Your task to perform on an android device: Empty the shopping cart on bestbuy.com. Add logitech g502 to the cart on bestbuy.com, then select checkout. Image 0: 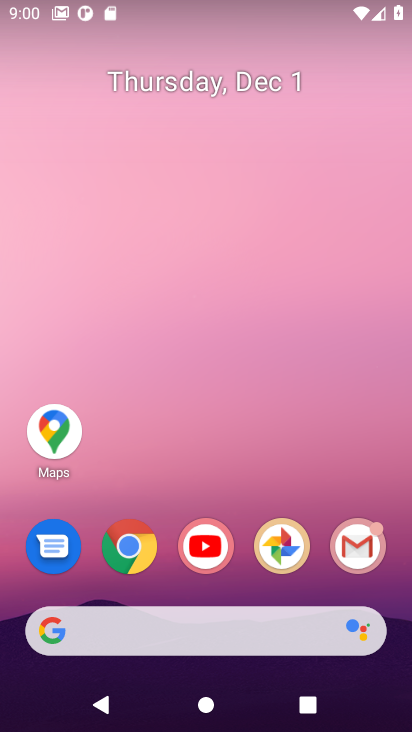
Step 0: click (134, 548)
Your task to perform on an android device: Empty the shopping cart on bestbuy.com. Add logitech g502 to the cart on bestbuy.com, then select checkout. Image 1: 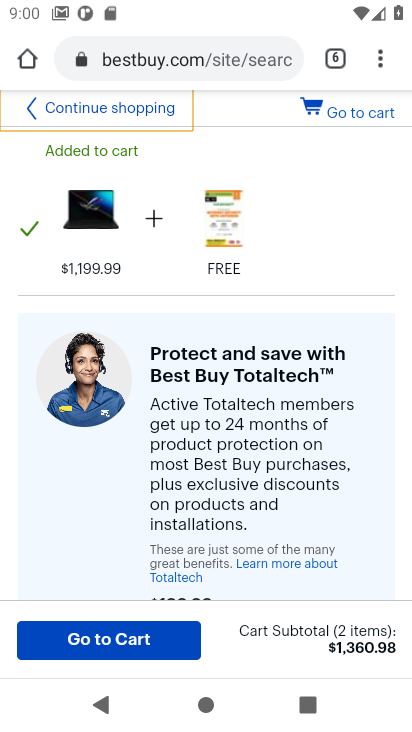
Step 1: click (351, 114)
Your task to perform on an android device: Empty the shopping cart on bestbuy.com. Add logitech g502 to the cart on bestbuy.com, then select checkout. Image 2: 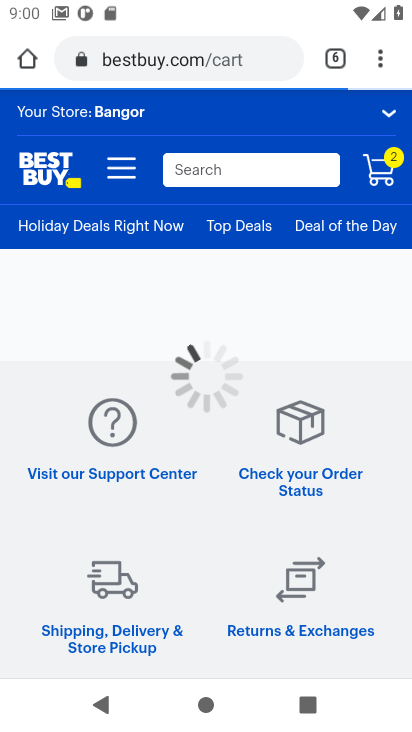
Step 2: click (382, 172)
Your task to perform on an android device: Empty the shopping cart on bestbuy.com. Add logitech g502 to the cart on bestbuy.com, then select checkout. Image 3: 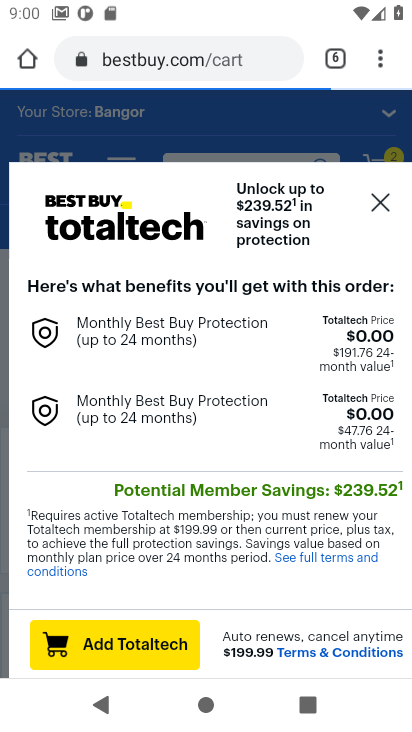
Step 3: drag from (318, 325) to (322, 251)
Your task to perform on an android device: Empty the shopping cart on bestbuy.com. Add logitech g502 to the cart on bestbuy.com, then select checkout. Image 4: 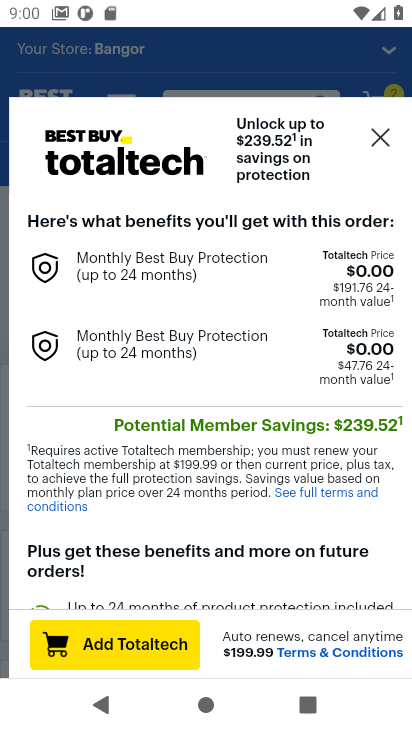
Step 4: click (380, 140)
Your task to perform on an android device: Empty the shopping cart on bestbuy.com. Add logitech g502 to the cart on bestbuy.com, then select checkout. Image 5: 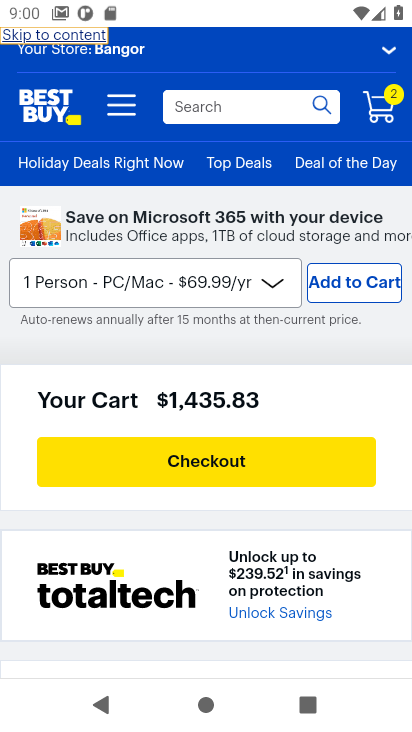
Step 5: drag from (272, 369) to (283, 184)
Your task to perform on an android device: Empty the shopping cart on bestbuy.com. Add logitech g502 to the cart on bestbuy.com, then select checkout. Image 6: 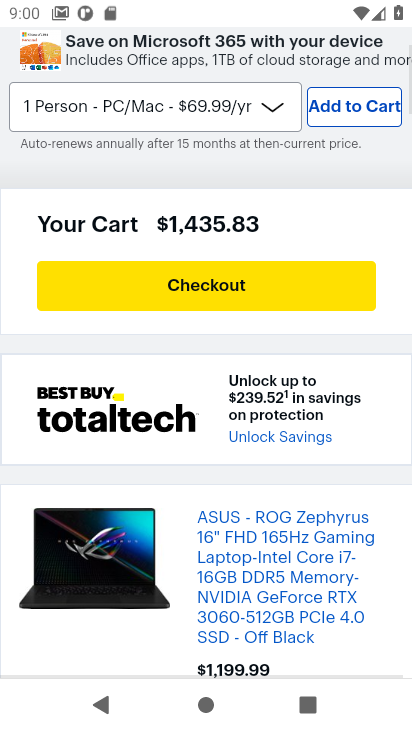
Step 6: drag from (249, 414) to (250, 172)
Your task to perform on an android device: Empty the shopping cart on bestbuy.com. Add logitech g502 to the cart on bestbuy.com, then select checkout. Image 7: 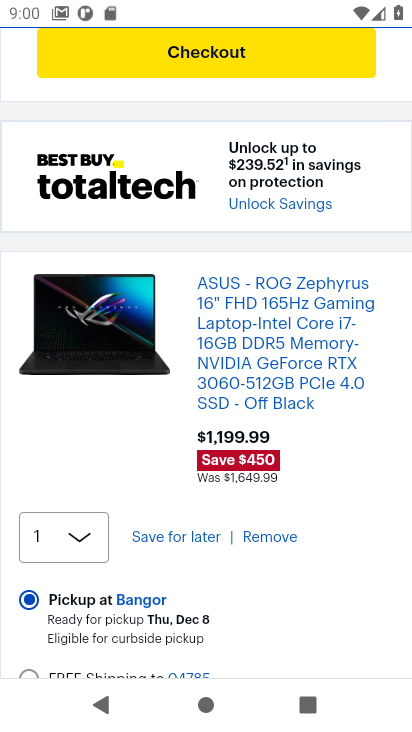
Step 7: click (259, 535)
Your task to perform on an android device: Empty the shopping cart on bestbuy.com. Add logitech g502 to the cart on bestbuy.com, then select checkout. Image 8: 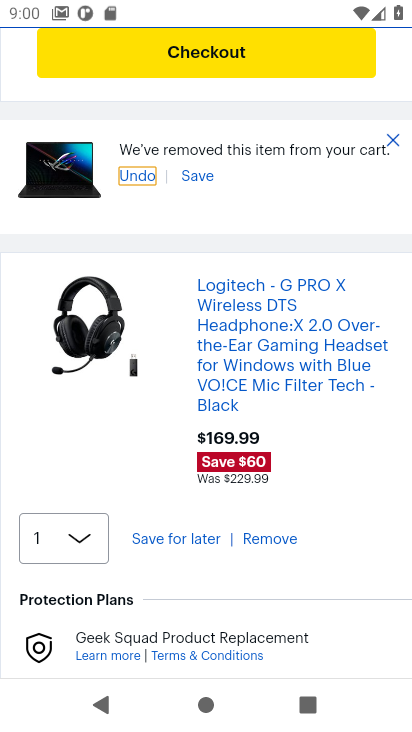
Step 8: click (259, 535)
Your task to perform on an android device: Empty the shopping cart on bestbuy.com. Add logitech g502 to the cart on bestbuy.com, then select checkout. Image 9: 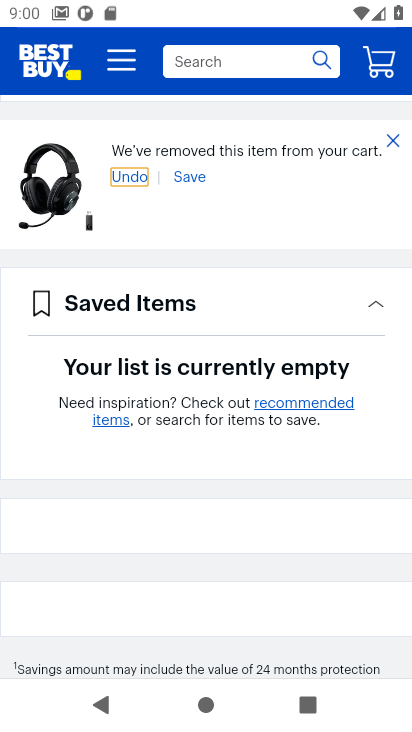
Step 9: drag from (250, 366) to (249, 458)
Your task to perform on an android device: Empty the shopping cart on bestbuy.com. Add logitech g502 to the cart on bestbuy.com, then select checkout. Image 10: 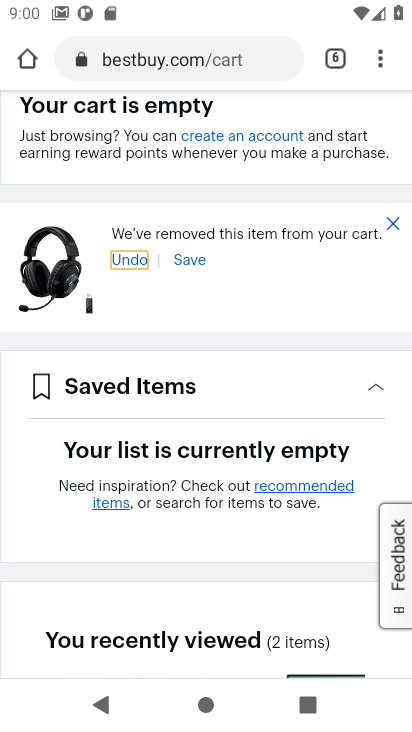
Step 10: drag from (267, 348) to (266, 424)
Your task to perform on an android device: Empty the shopping cart on bestbuy.com. Add logitech g502 to the cart on bestbuy.com, then select checkout. Image 11: 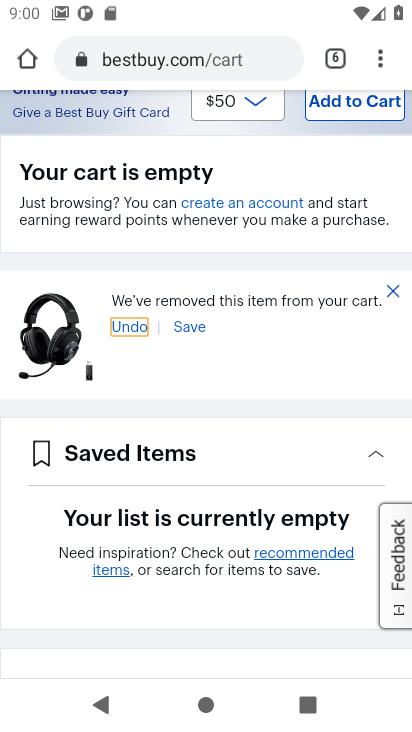
Step 11: drag from (267, 171) to (267, 377)
Your task to perform on an android device: Empty the shopping cart on bestbuy.com. Add logitech g502 to the cart on bestbuy.com, then select checkout. Image 12: 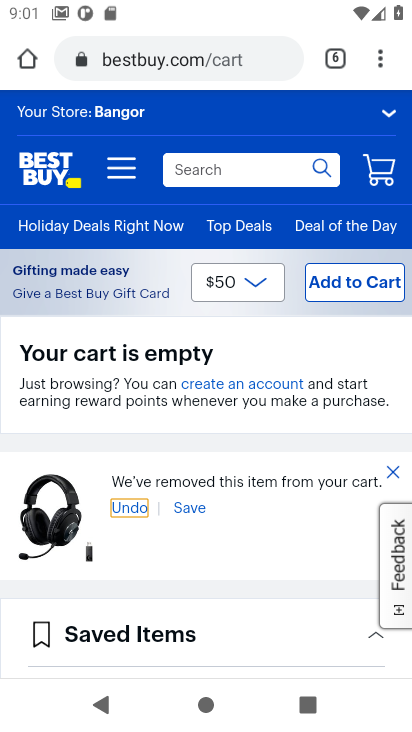
Step 12: click (178, 172)
Your task to perform on an android device: Empty the shopping cart on bestbuy.com. Add logitech g502 to the cart on bestbuy.com, then select checkout. Image 13: 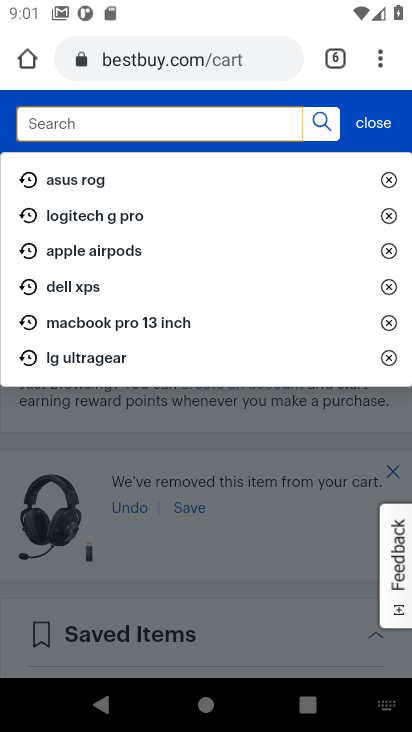
Step 13: type "logitech g502"
Your task to perform on an android device: Empty the shopping cart on bestbuy.com. Add logitech g502 to the cart on bestbuy.com, then select checkout. Image 14: 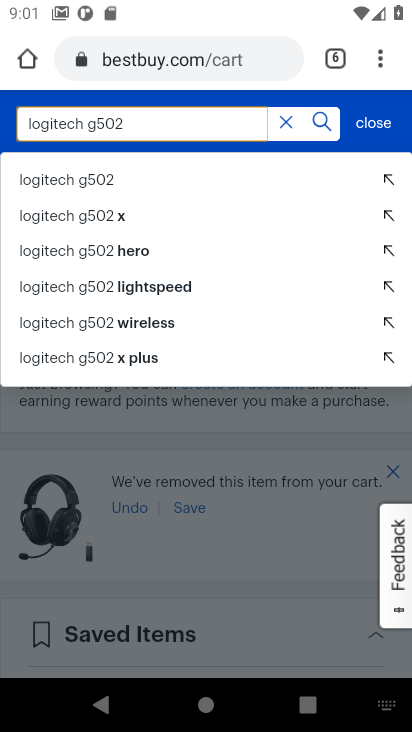
Step 14: click (64, 184)
Your task to perform on an android device: Empty the shopping cart on bestbuy.com. Add logitech g502 to the cart on bestbuy.com, then select checkout. Image 15: 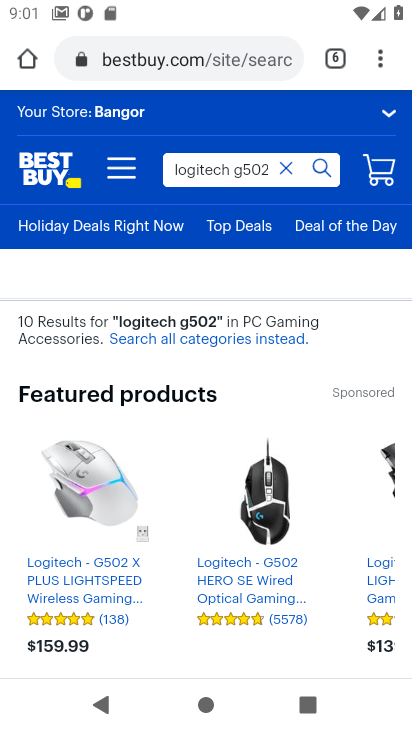
Step 15: drag from (205, 392) to (215, 204)
Your task to perform on an android device: Empty the shopping cart on bestbuy.com. Add logitech g502 to the cart on bestbuy.com, then select checkout. Image 16: 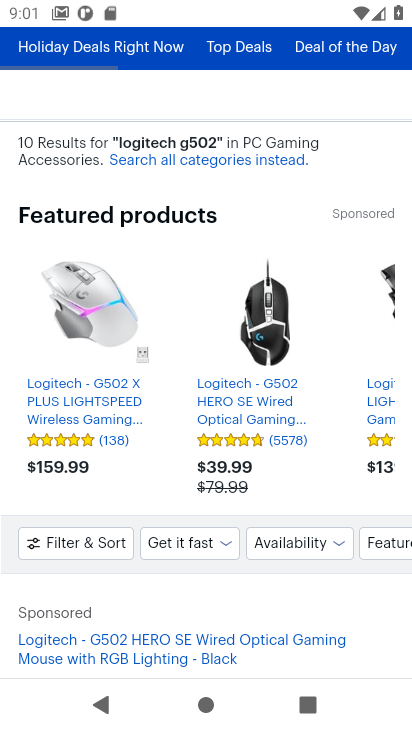
Step 16: drag from (176, 460) to (166, 242)
Your task to perform on an android device: Empty the shopping cart on bestbuy.com. Add logitech g502 to the cart on bestbuy.com, then select checkout. Image 17: 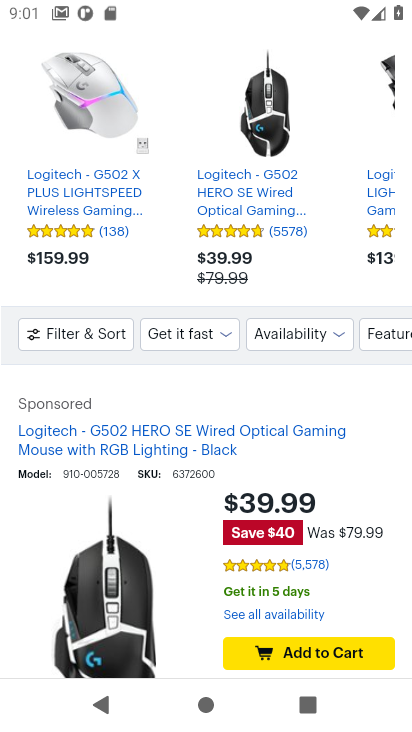
Step 17: drag from (168, 486) to (163, 321)
Your task to perform on an android device: Empty the shopping cart on bestbuy.com. Add logitech g502 to the cart on bestbuy.com, then select checkout. Image 18: 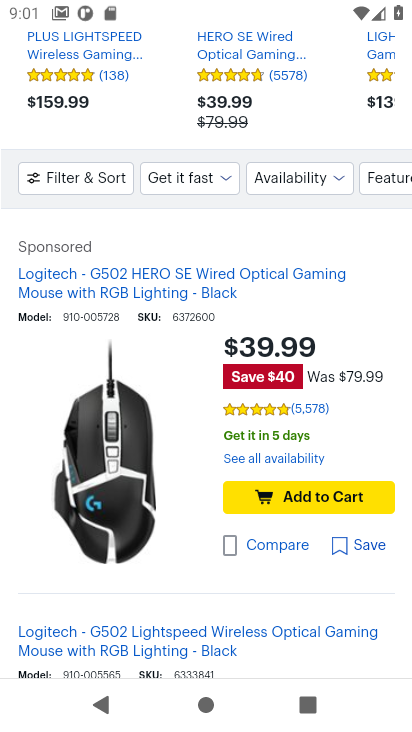
Step 18: click (303, 497)
Your task to perform on an android device: Empty the shopping cart on bestbuy.com. Add logitech g502 to the cart on bestbuy.com, then select checkout. Image 19: 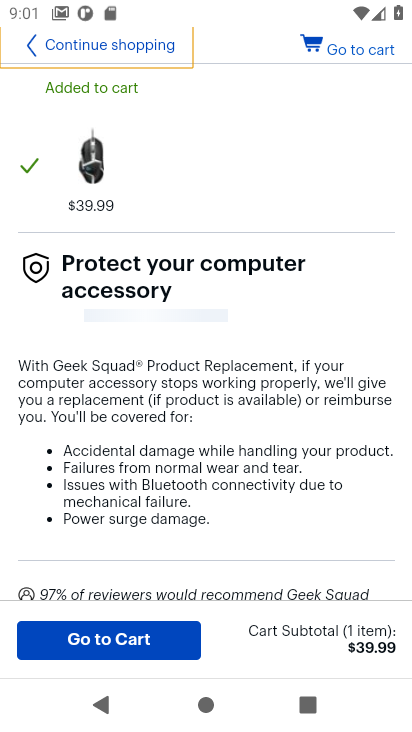
Step 19: click (357, 55)
Your task to perform on an android device: Empty the shopping cart on bestbuy.com. Add logitech g502 to the cart on bestbuy.com, then select checkout. Image 20: 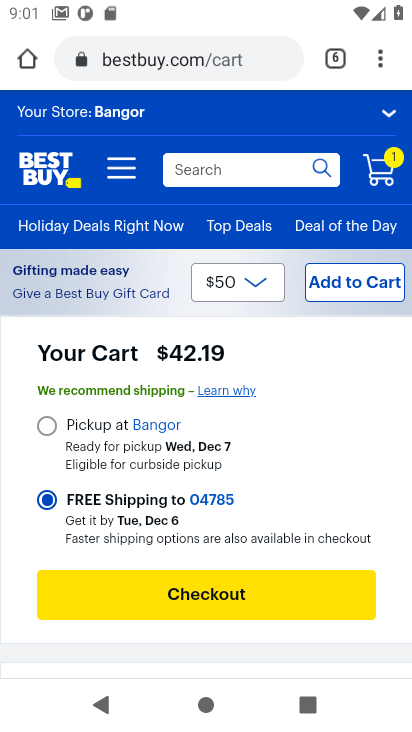
Step 20: click (184, 590)
Your task to perform on an android device: Empty the shopping cart on bestbuy.com. Add logitech g502 to the cart on bestbuy.com, then select checkout. Image 21: 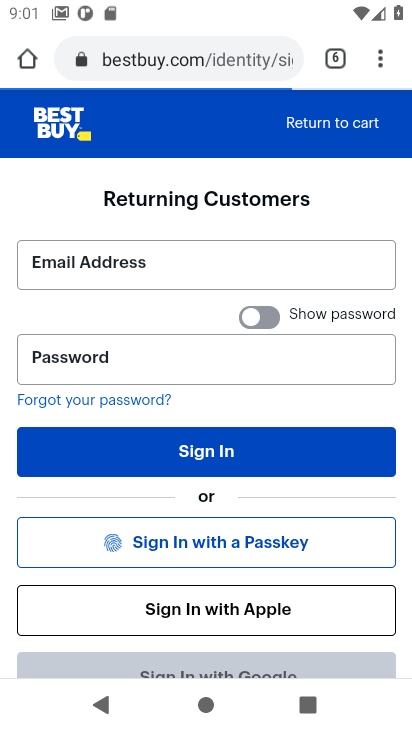
Step 21: task complete